Your task to perform on an android device: Go to Android settings Image 0: 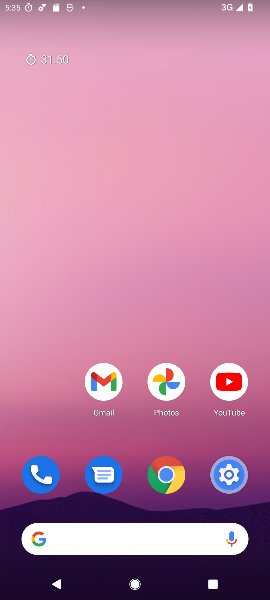
Step 0: press home button
Your task to perform on an android device: Go to Android settings Image 1: 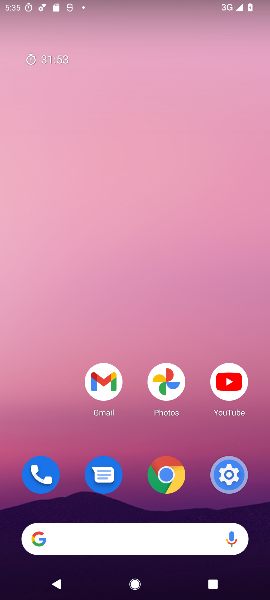
Step 1: drag from (64, 407) to (65, 110)
Your task to perform on an android device: Go to Android settings Image 2: 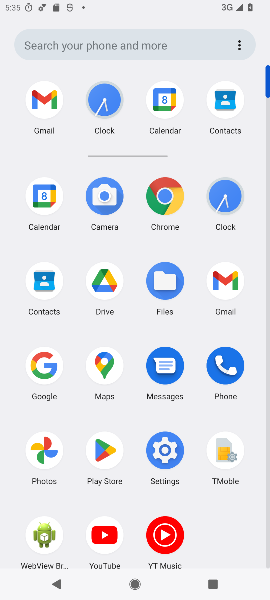
Step 2: click (167, 448)
Your task to perform on an android device: Go to Android settings Image 3: 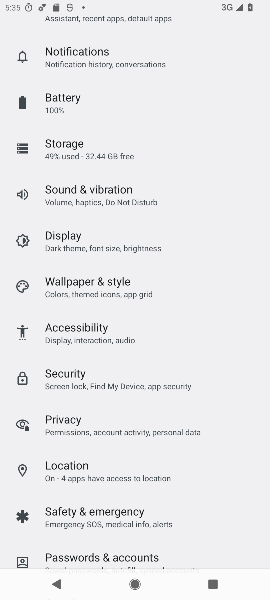
Step 3: drag from (214, 450) to (224, 356)
Your task to perform on an android device: Go to Android settings Image 4: 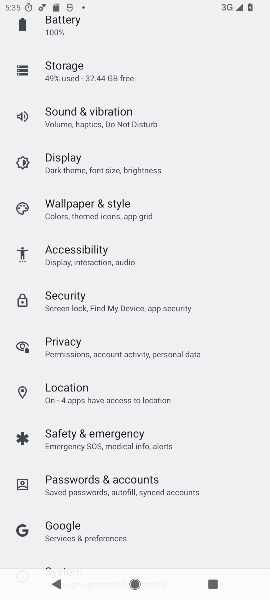
Step 4: drag from (227, 456) to (233, 339)
Your task to perform on an android device: Go to Android settings Image 5: 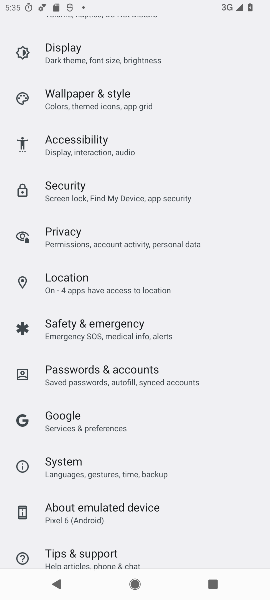
Step 5: drag from (216, 466) to (231, 362)
Your task to perform on an android device: Go to Android settings Image 6: 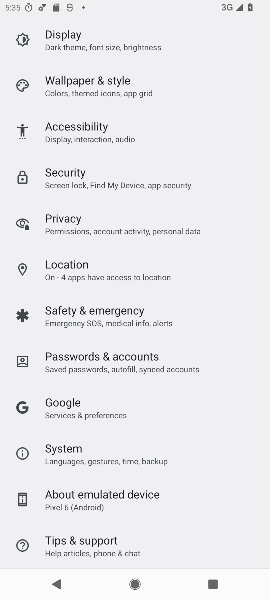
Step 6: click (187, 448)
Your task to perform on an android device: Go to Android settings Image 7: 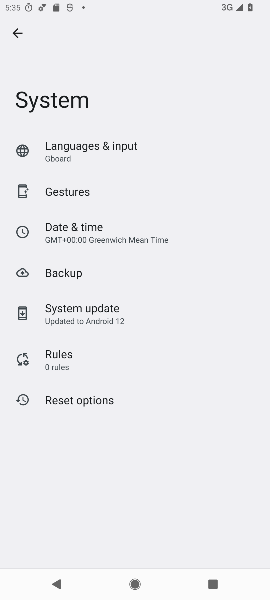
Step 7: task complete